Your task to perform on an android device: turn on the 24-hour format for clock Image 0: 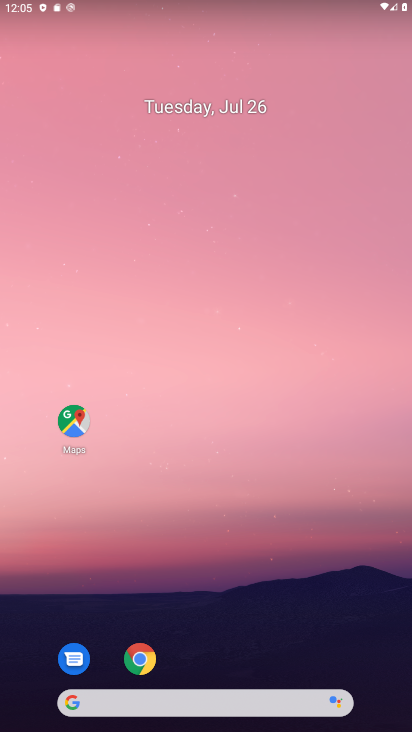
Step 0: press home button
Your task to perform on an android device: turn on the 24-hour format for clock Image 1: 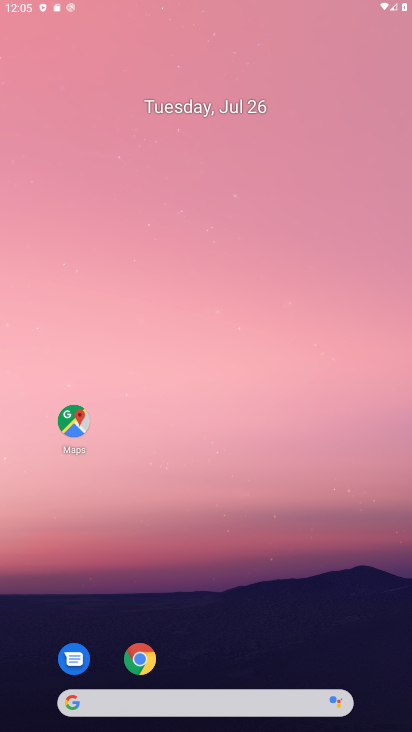
Step 1: drag from (216, 314) to (214, 264)
Your task to perform on an android device: turn on the 24-hour format for clock Image 2: 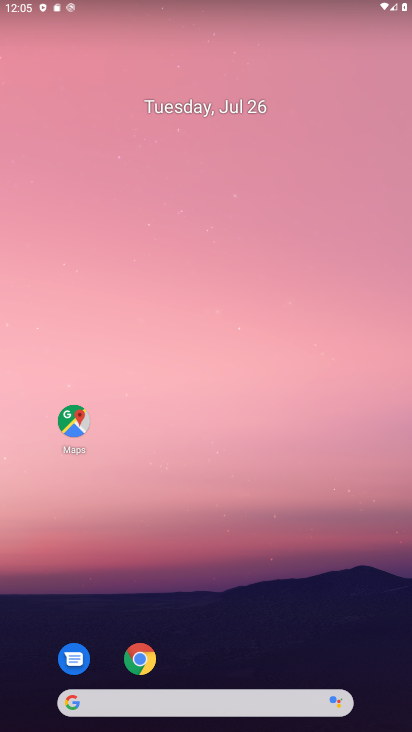
Step 2: drag from (261, 670) to (302, 140)
Your task to perform on an android device: turn on the 24-hour format for clock Image 3: 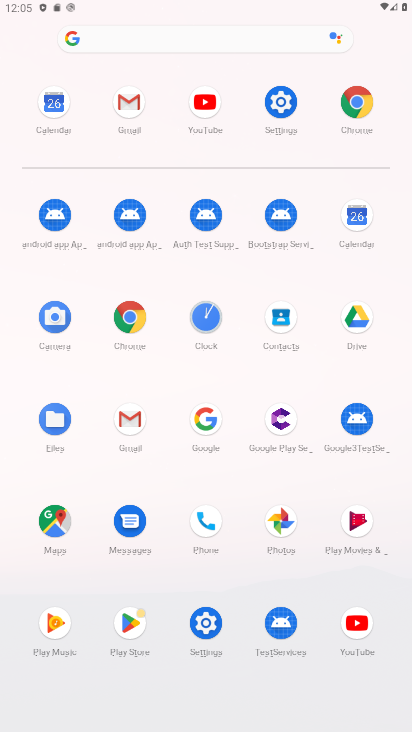
Step 3: click (215, 309)
Your task to perform on an android device: turn on the 24-hour format for clock Image 4: 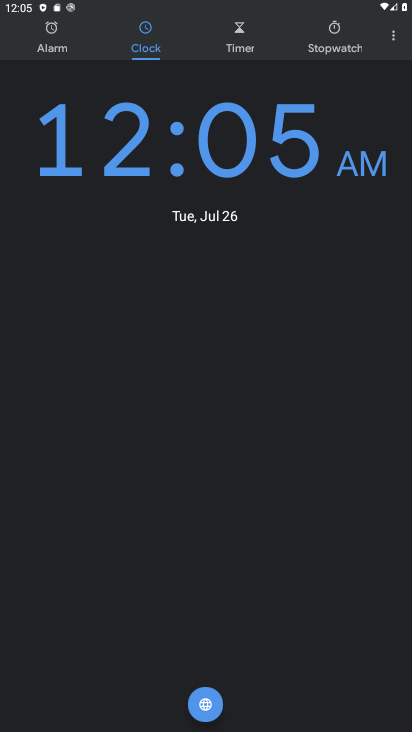
Step 4: click (379, 27)
Your task to perform on an android device: turn on the 24-hour format for clock Image 5: 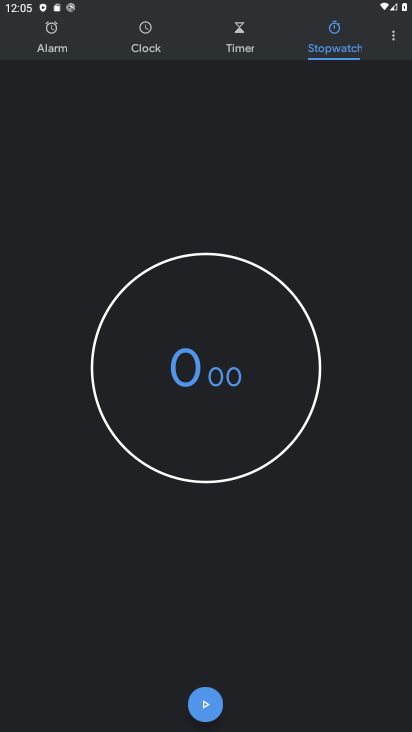
Step 5: click (385, 33)
Your task to perform on an android device: turn on the 24-hour format for clock Image 6: 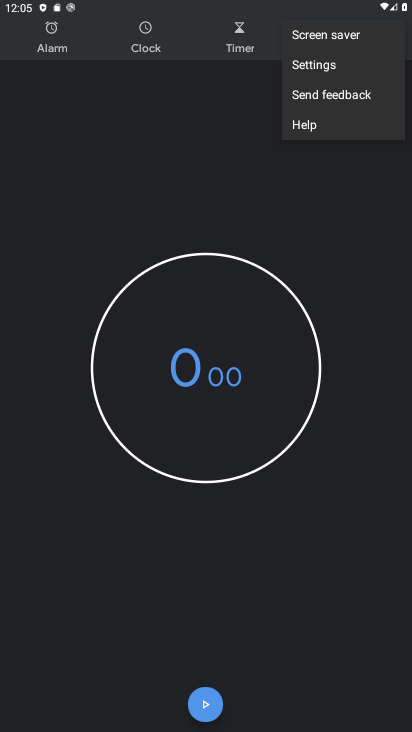
Step 6: click (321, 59)
Your task to perform on an android device: turn on the 24-hour format for clock Image 7: 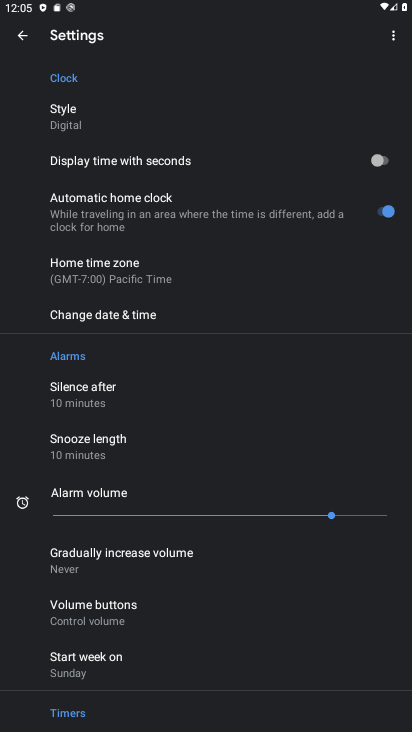
Step 7: click (123, 303)
Your task to perform on an android device: turn on the 24-hour format for clock Image 8: 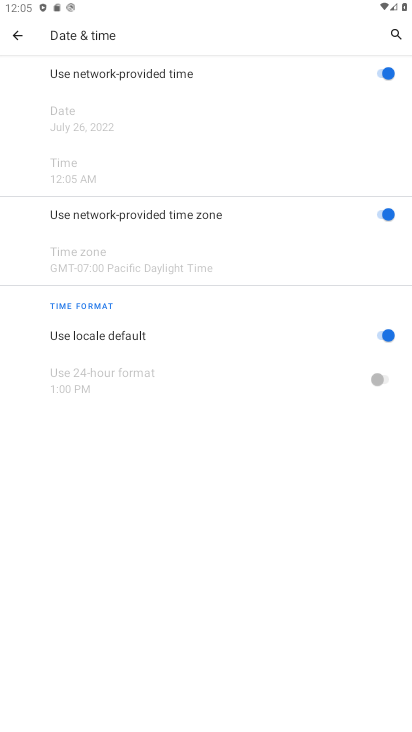
Step 8: click (150, 332)
Your task to perform on an android device: turn on the 24-hour format for clock Image 9: 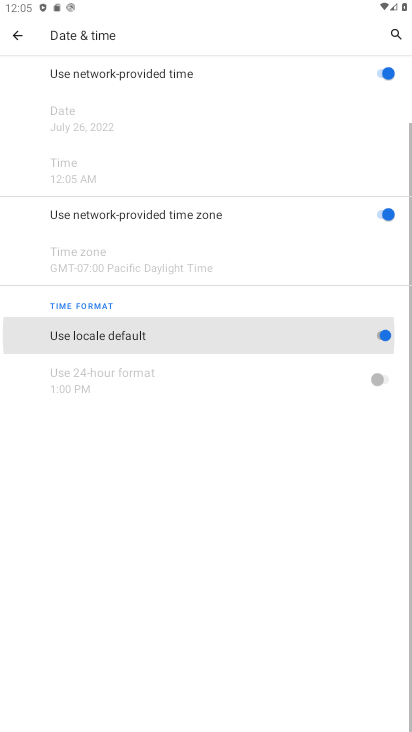
Step 9: click (160, 371)
Your task to perform on an android device: turn on the 24-hour format for clock Image 10: 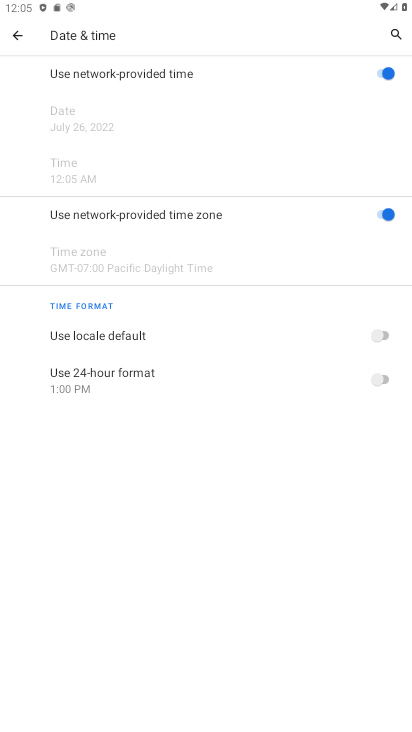
Step 10: click (368, 375)
Your task to perform on an android device: turn on the 24-hour format for clock Image 11: 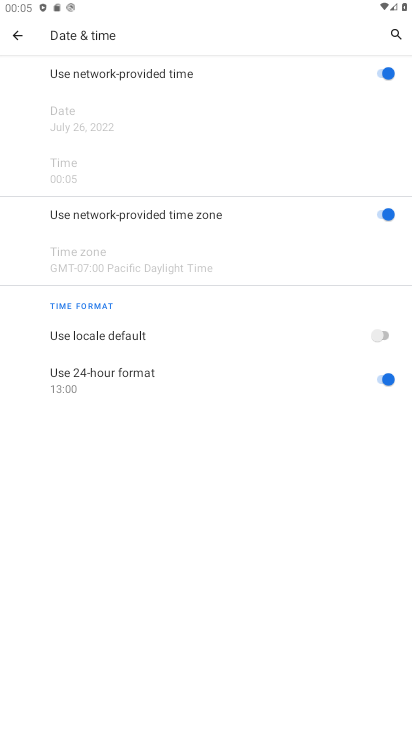
Step 11: task complete